Your task to perform on an android device: Open calendar and show me the third week of next month Image 0: 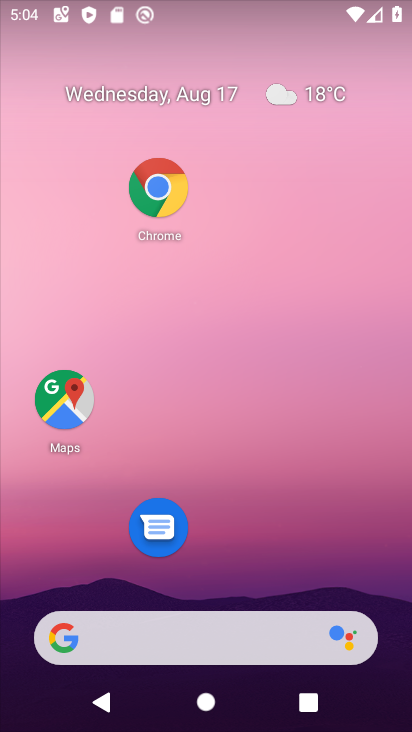
Step 0: click (178, 101)
Your task to perform on an android device: Open calendar and show me the third week of next month Image 1: 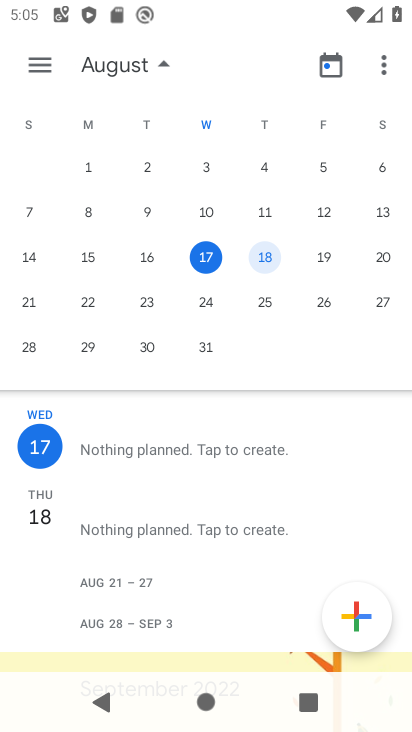
Step 1: drag from (324, 359) to (20, 303)
Your task to perform on an android device: Open calendar and show me the third week of next month Image 2: 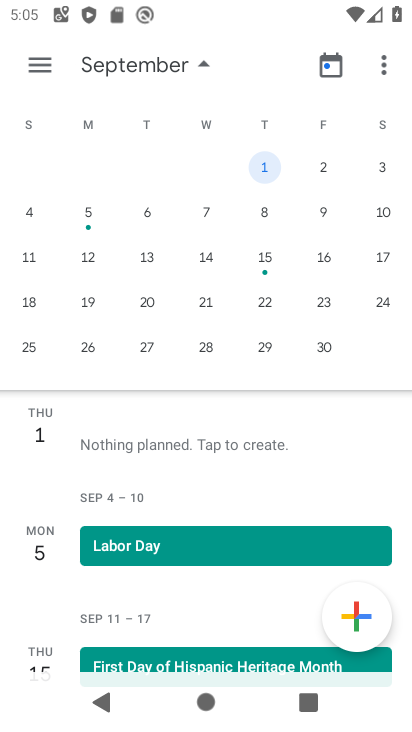
Step 2: click (271, 252)
Your task to perform on an android device: Open calendar and show me the third week of next month Image 3: 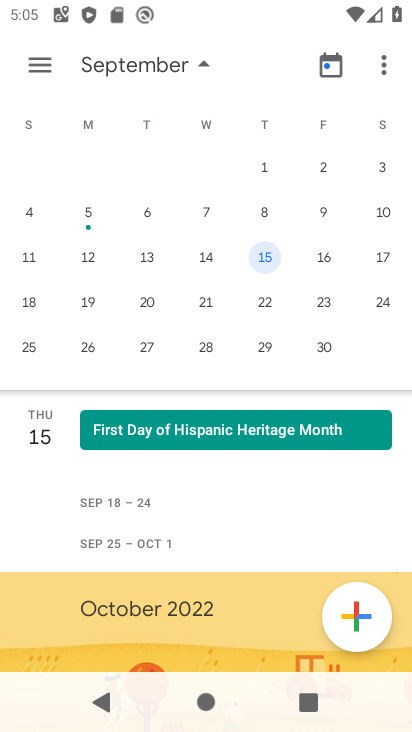
Step 3: task complete